Your task to perform on an android device: Add "bose quietcomfort 35" to the cart on walmart.com, then select checkout. Image 0: 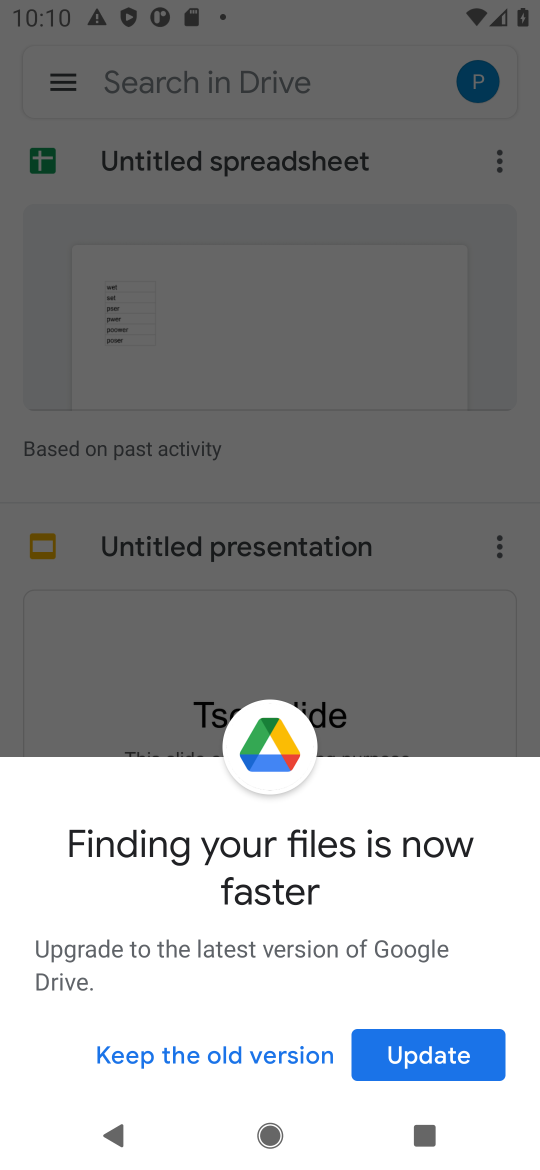
Step 0: press home button
Your task to perform on an android device: Add "bose quietcomfort 35" to the cart on walmart.com, then select checkout. Image 1: 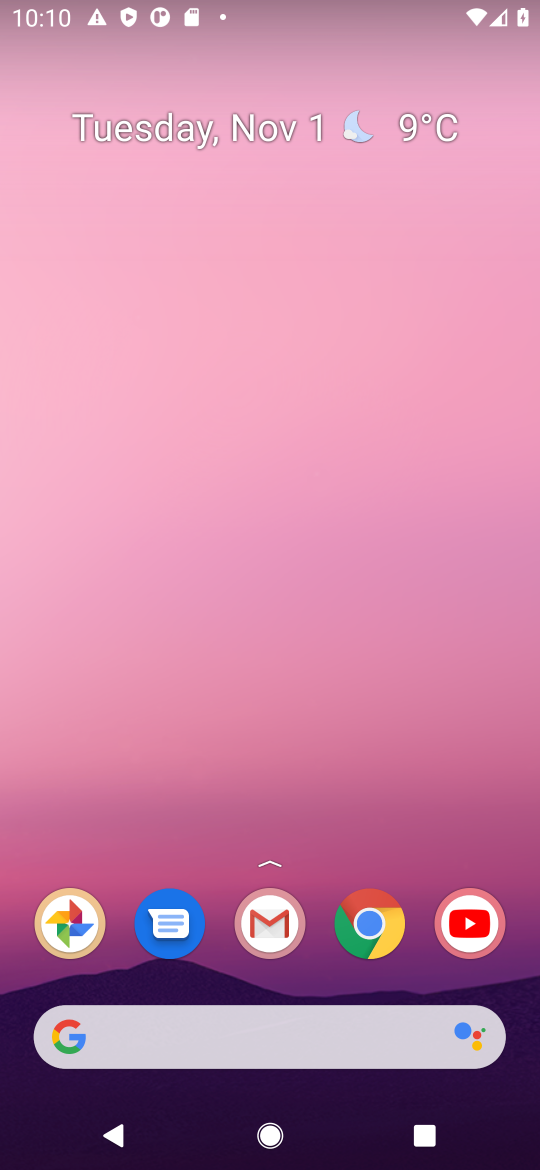
Step 1: drag from (332, 931) to (490, 111)
Your task to perform on an android device: Add "bose quietcomfort 35" to the cart on walmart.com, then select checkout. Image 2: 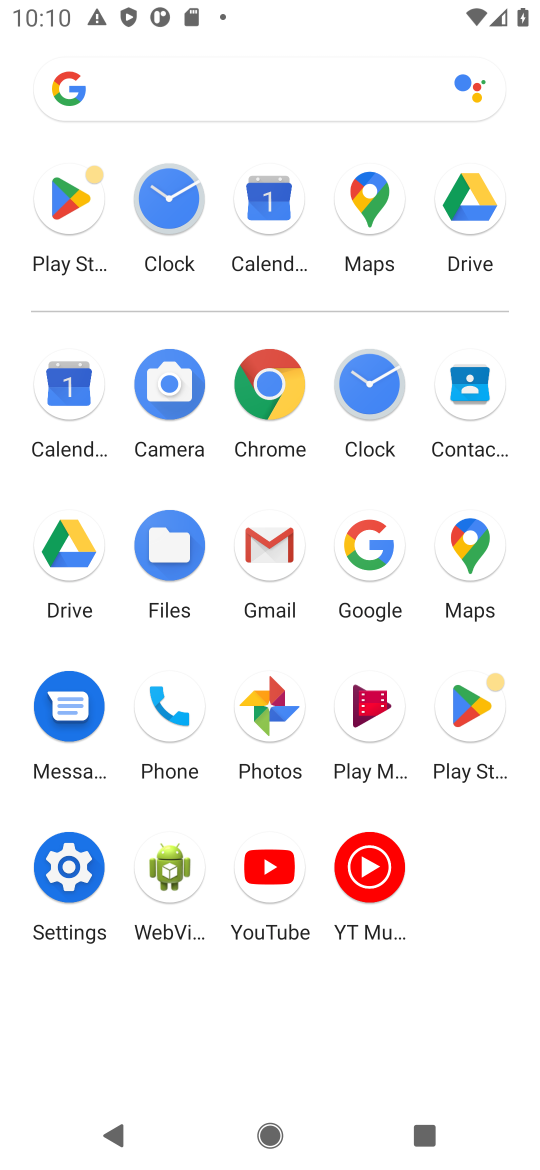
Step 2: click (271, 380)
Your task to perform on an android device: Add "bose quietcomfort 35" to the cart on walmart.com, then select checkout. Image 3: 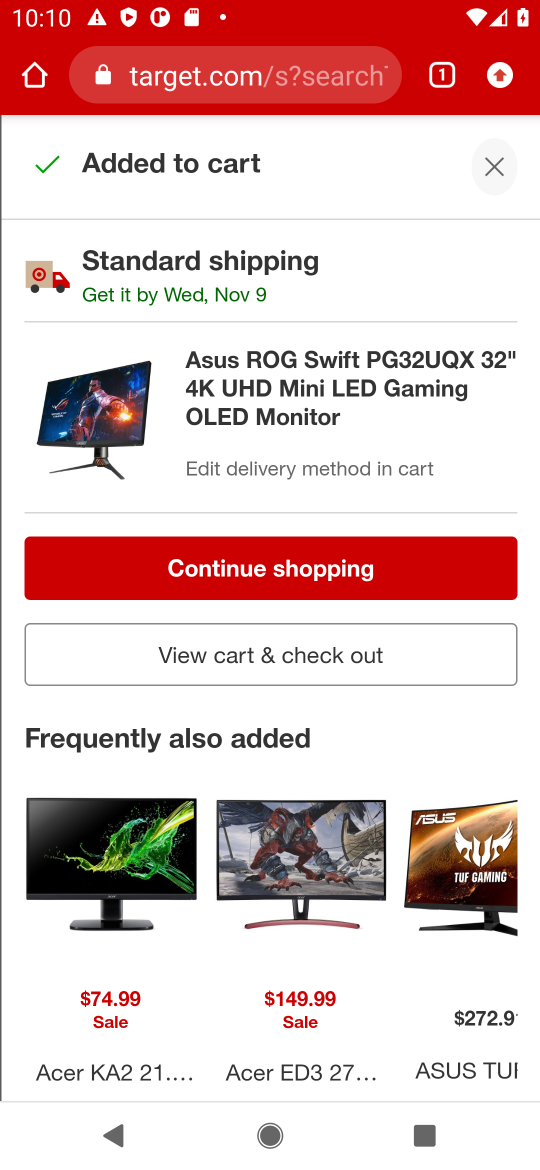
Step 3: click (318, 62)
Your task to perform on an android device: Add "bose quietcomfort 35" to the cart on walmart.com, then select checkout. Image 4: 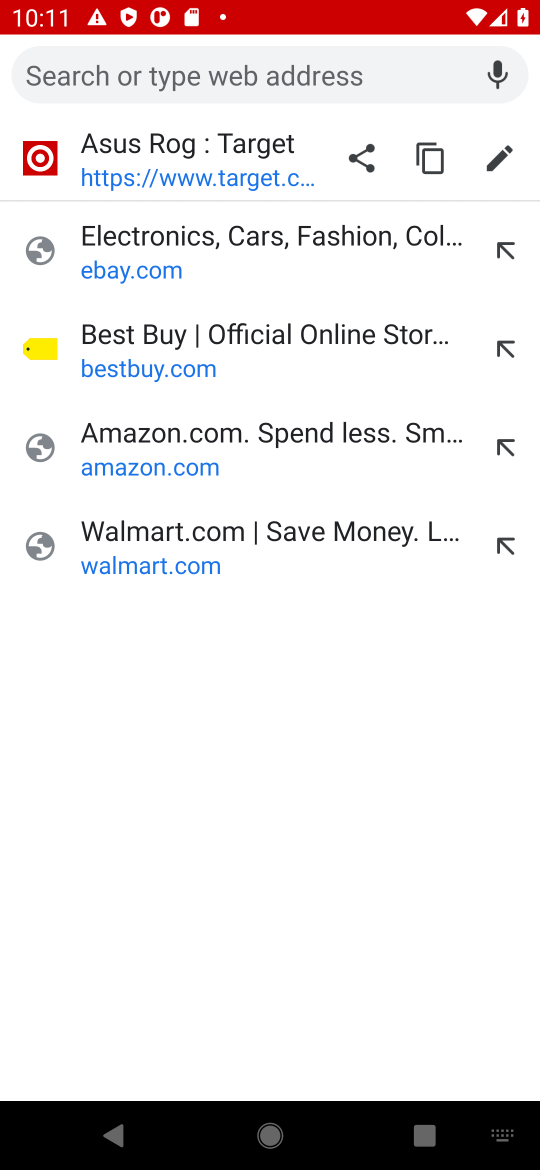
Step 4: type "walmart.com"
Your task to perform on an android device: Add "bose quietcomfort 35" to the cart on walmart.com, then select checkout. Image 5: 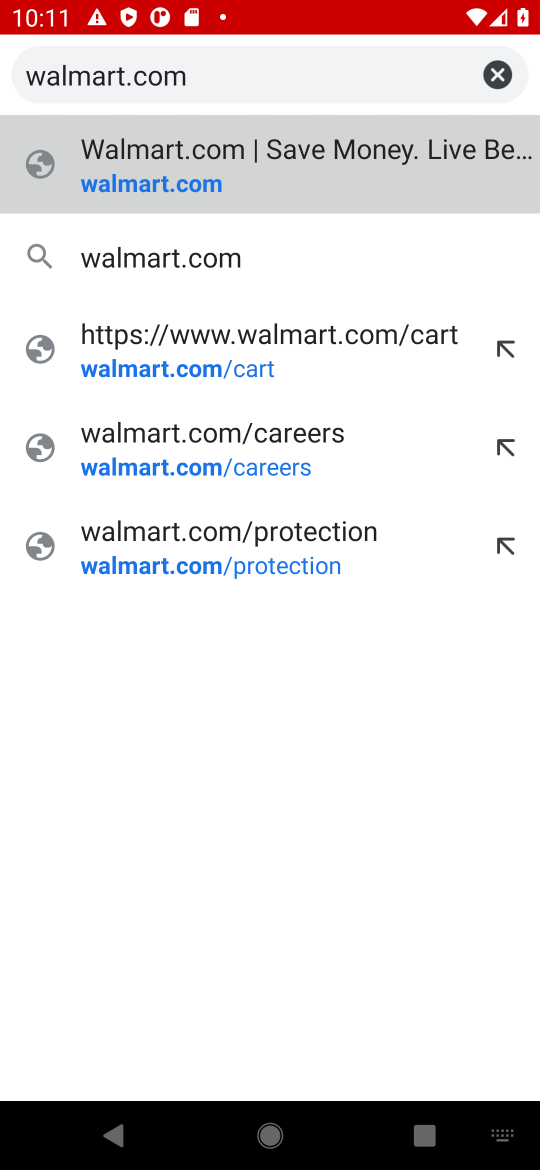
Step 5: press enter
Your task to perform on an android device: Add "bose quietcomfort 35" to the cart on walmart.com, then select checkout. Image 6: 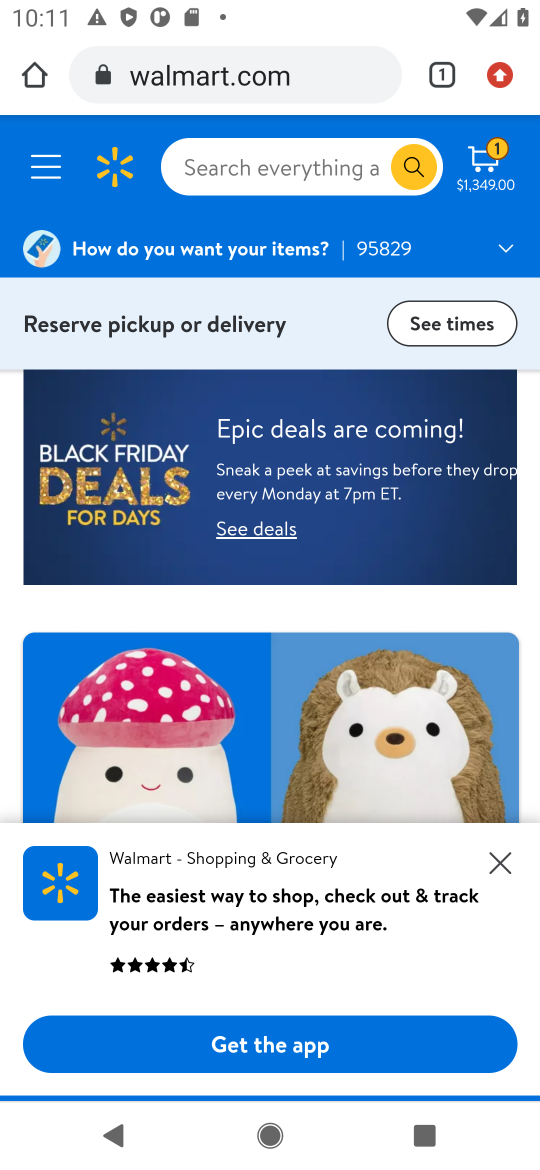
Step 6: click (323, 170)
Your task to perform on an android device: Add "bose quietcomfort 35" to the cart on walmart.com, then select checkout. Image 7: 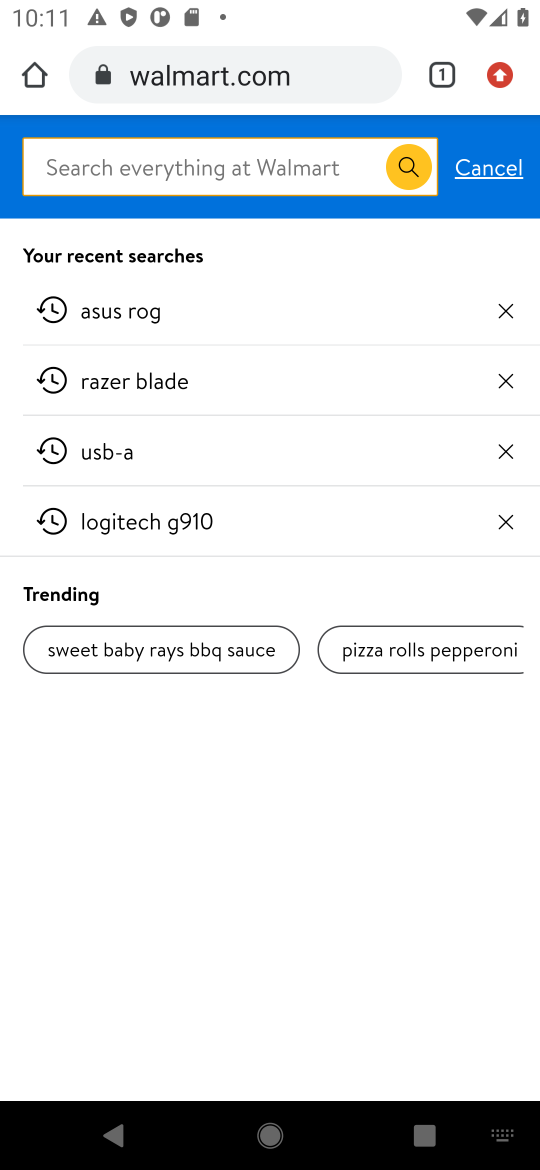
Step 7: type "bose quietcomfort 35"
Your task to perform on an android device: Add "bose quietcomfort 35" to the cart on walmart.com, then select checkout. Image 8: 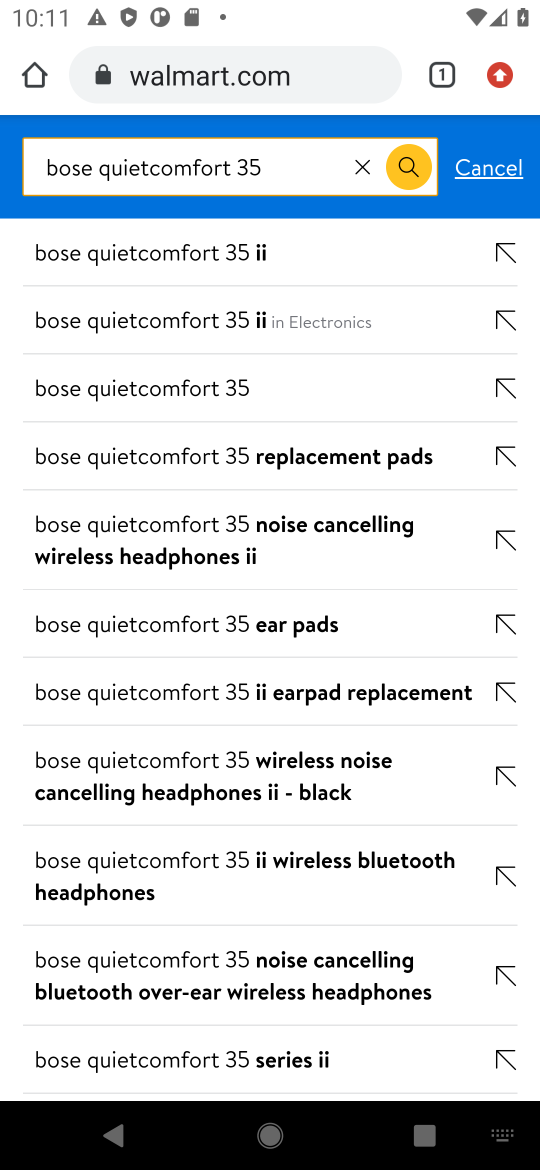
Step 8: press enter
Your task to perform on an android device: Add "bose quietcomfort 35" to the cart on walmart.com, then select checkout. Image 9: 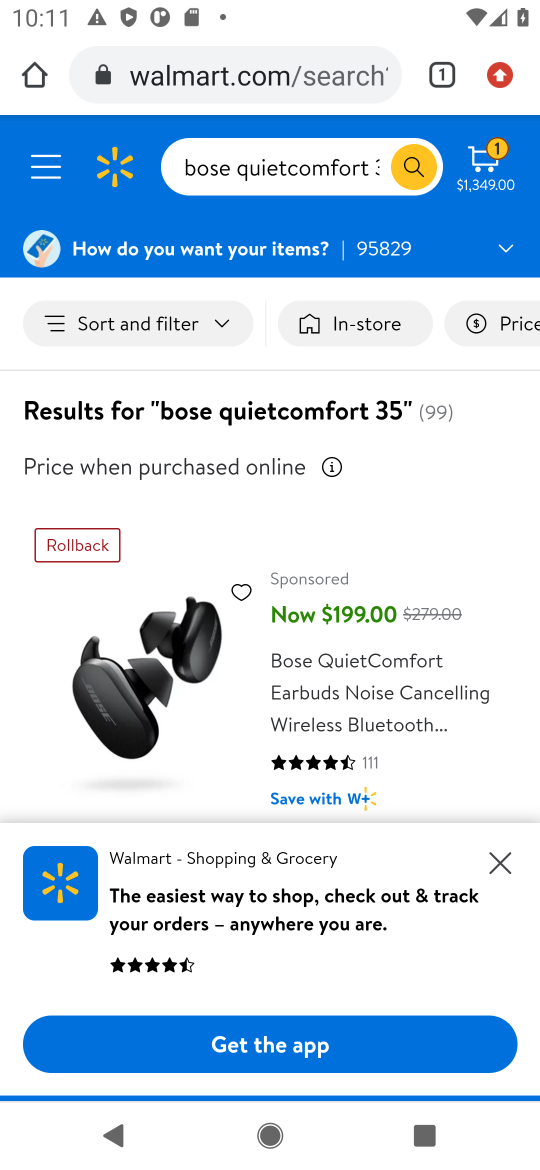
Step 9: drag from (364, 815) to (292, 277)
Your task to perform on an android device: Add "bose quietcomfort 35" to the cart on walmart.com, then select checkout. Image 10: 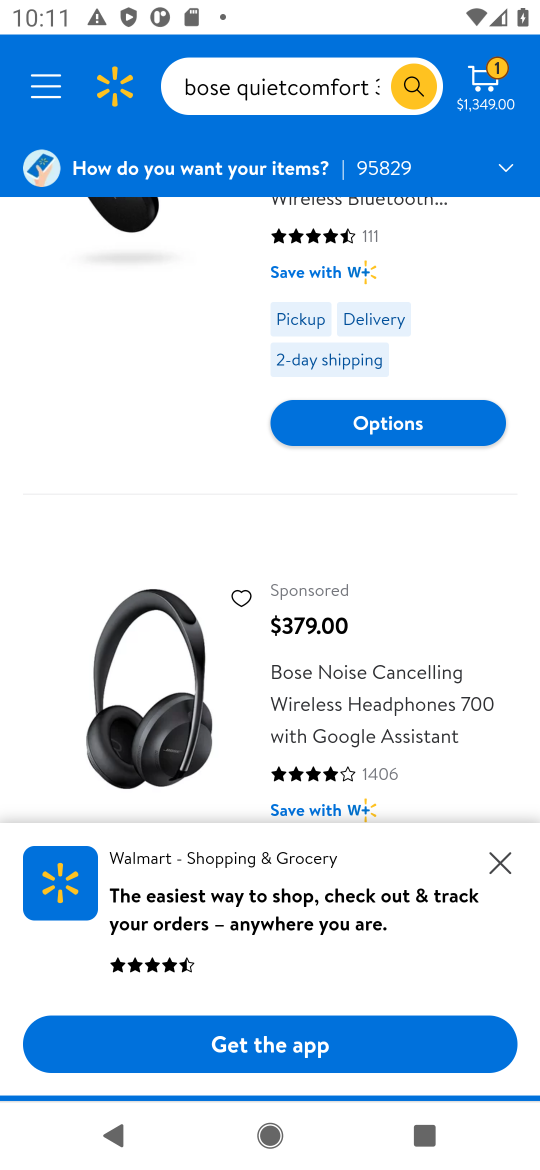
Step 10: click (505, 870)
Your task to perform on an android device: Add "bose quietcomfort 35" to the cart on walmart.com, then select checkout. Image 11: 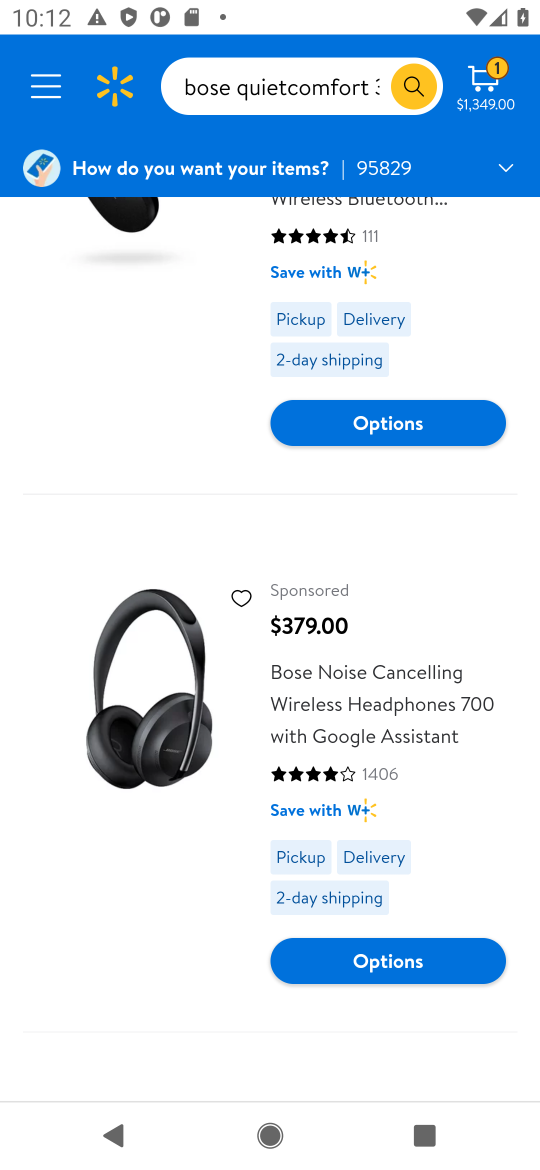
Step 11: drag from (444, 876) to (425, 313)
Your task to perform on an android device: Add "bose quietcomfort 35" to the cart on walmart.com, then select checkout. Image 12: 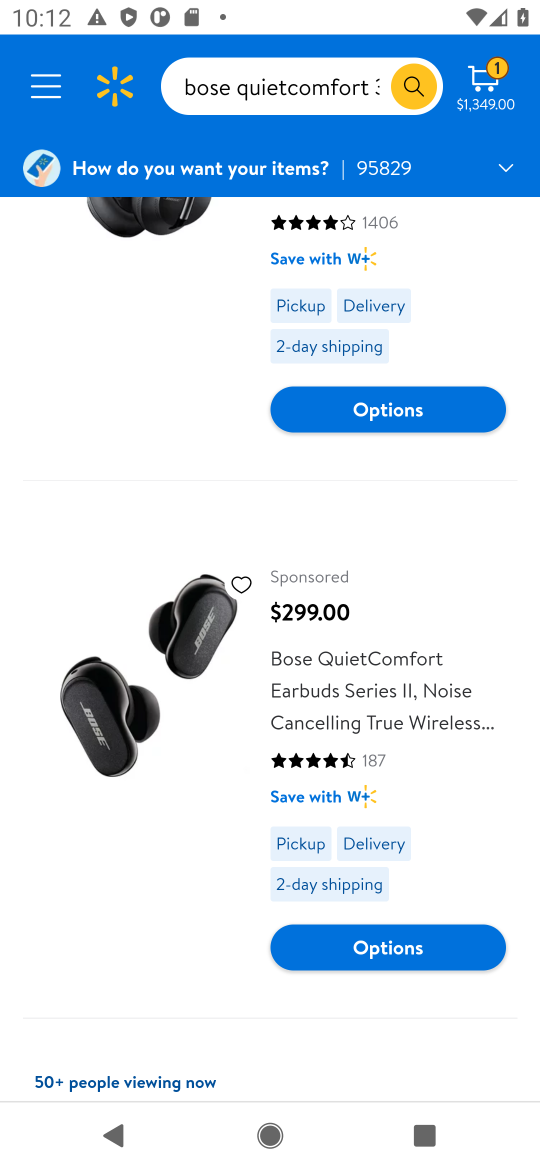
Step 12: drag from (488, 905) to (371, 170)
Your task to perform on an android device: Add "bose quietcomfort 35" to the cart on walmart.com, then select checkout. Image 13: 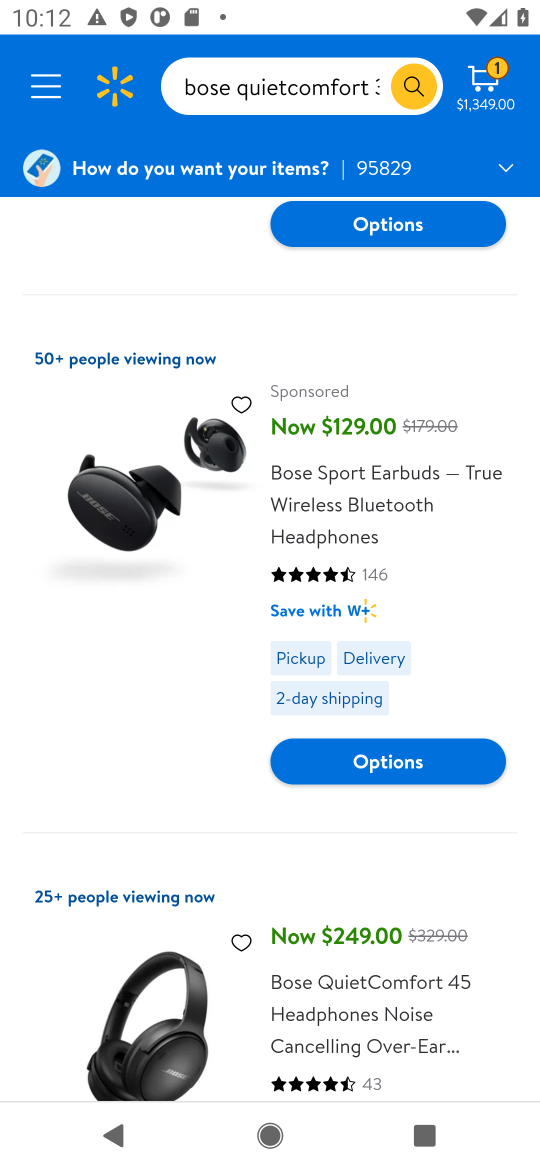
Step 13: drag from (376, 922) to (382, 470)
Your task to perform on an android device: Add "bose quietcomfort 35" to the cart on walmart.com, then select checkout. Image 14: 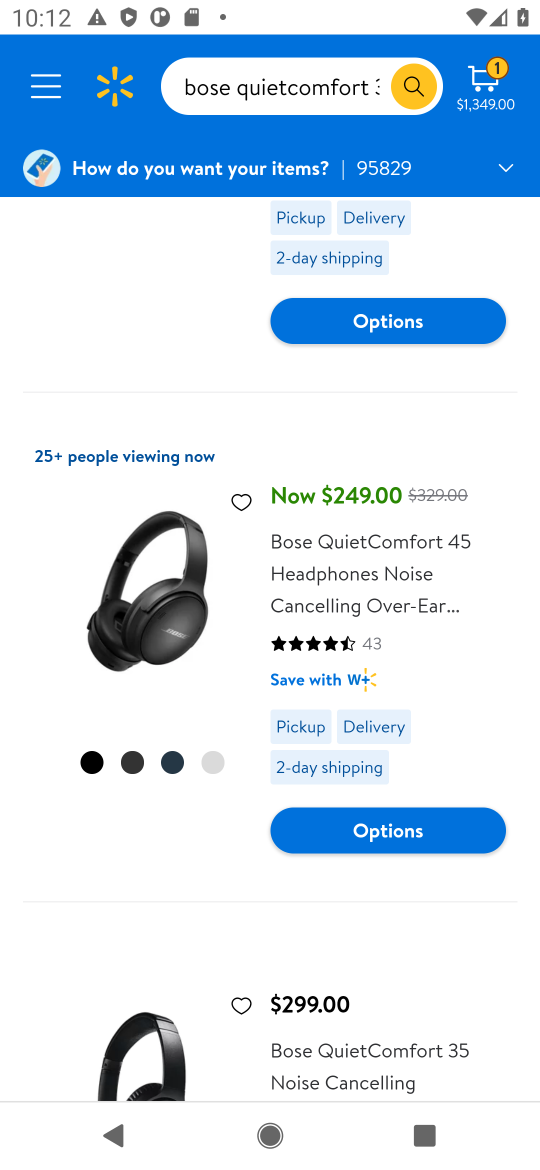
Step 14: click (321, 646)
Your task to perform on an android device: Add "bose quietcomfort 35" to the cart on walmart.com, then select checkout. Image 15: 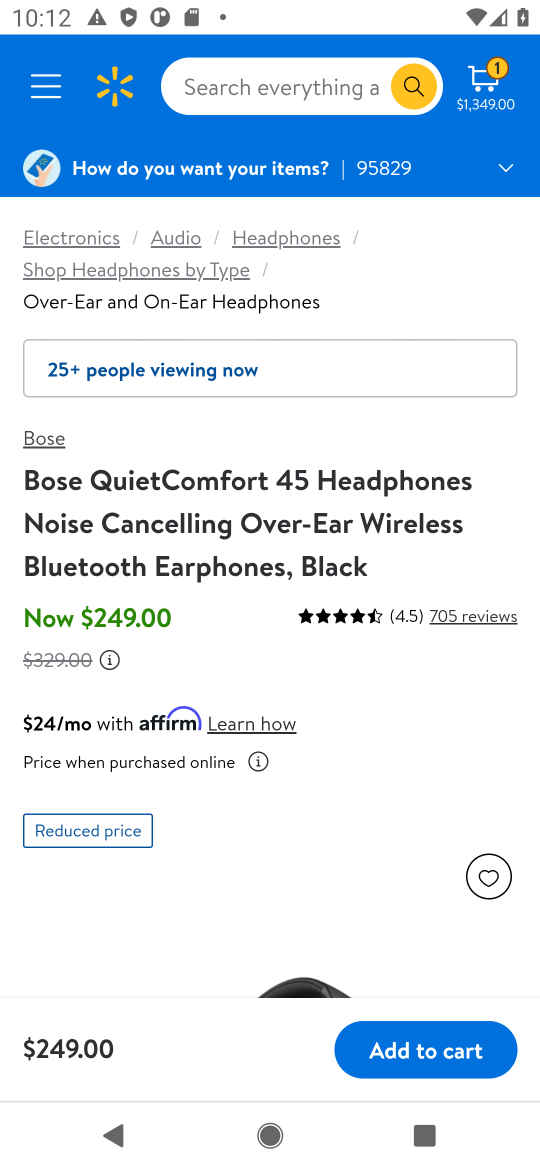
Step 15: click (436, 1053)
Your task to perform on an android device: Add "bose quietcomfort 35" to the cart on walmart.com, then select checkout. Image 16: 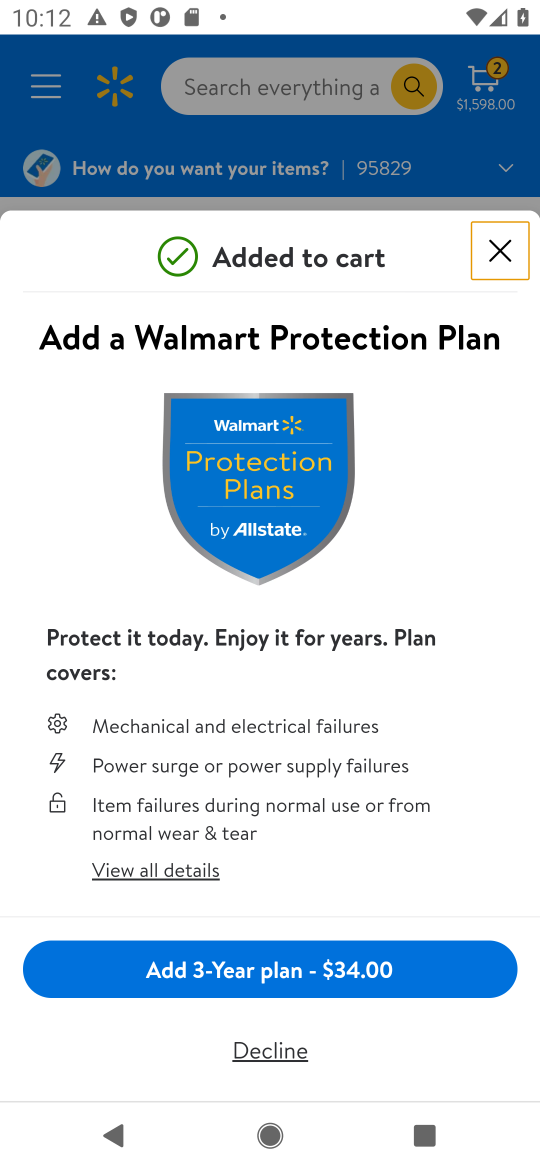
Step 16: click (511, 258)
Your task to perform on an android device: Add "bose quietcomfort 35" to the cart on walmart.com, then select checkout. Image 17: 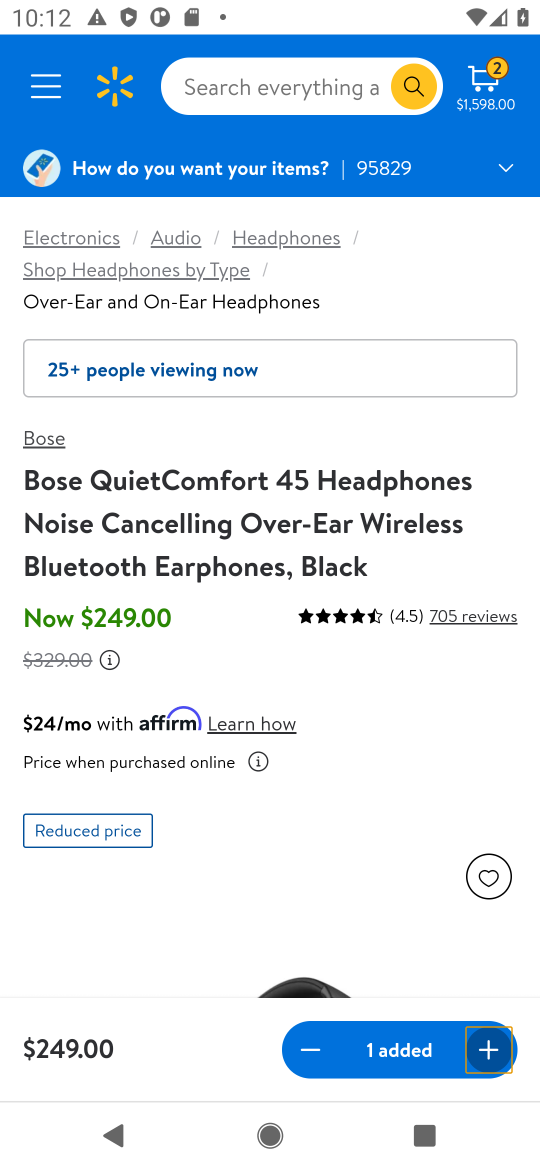
Step 17: drag from (375, 866) to (396, 294)
Your task to perform on an android device: Add "bose quietcomfort 35" to the cart on walmart.com, then select checkout. Image 18: 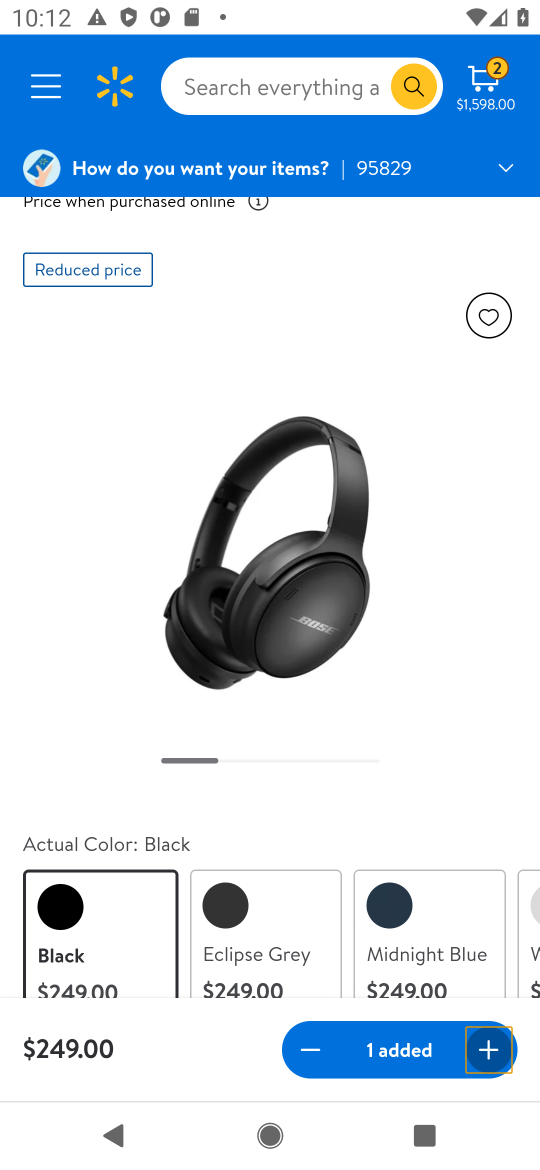
Step 18: click (487, 74)
Your task to perform on an android device: Add "bose quietcomfort 35" to the cart on walmart.com, then select checkout. Image 19: 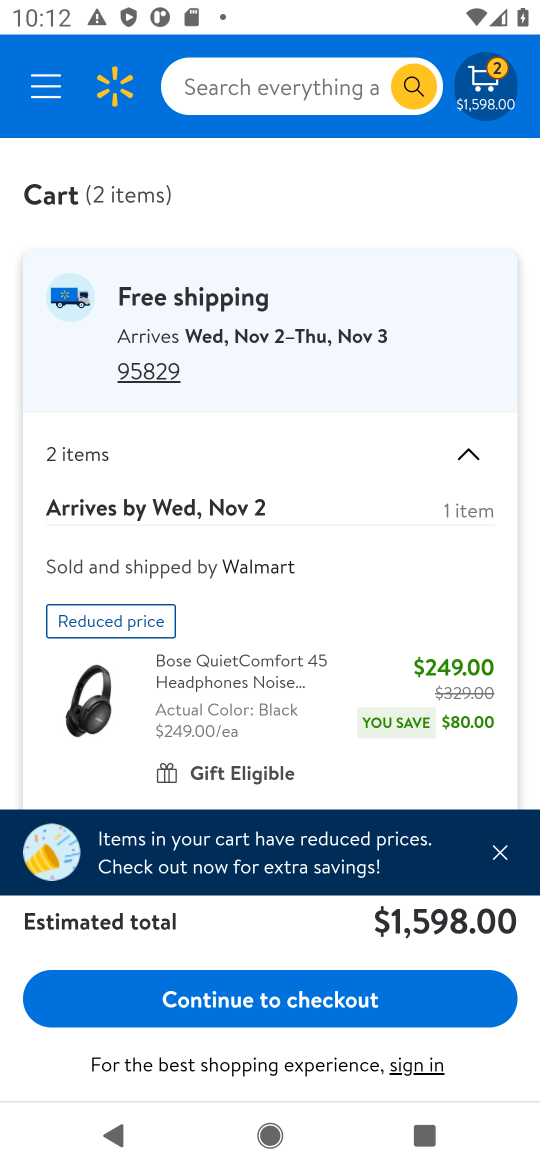
Step 19: click (310, 1019)
Your task to perform on an android device: Add "bose quietcomfort 35" to the cart on walmart.com, then select checkout. Image 20: 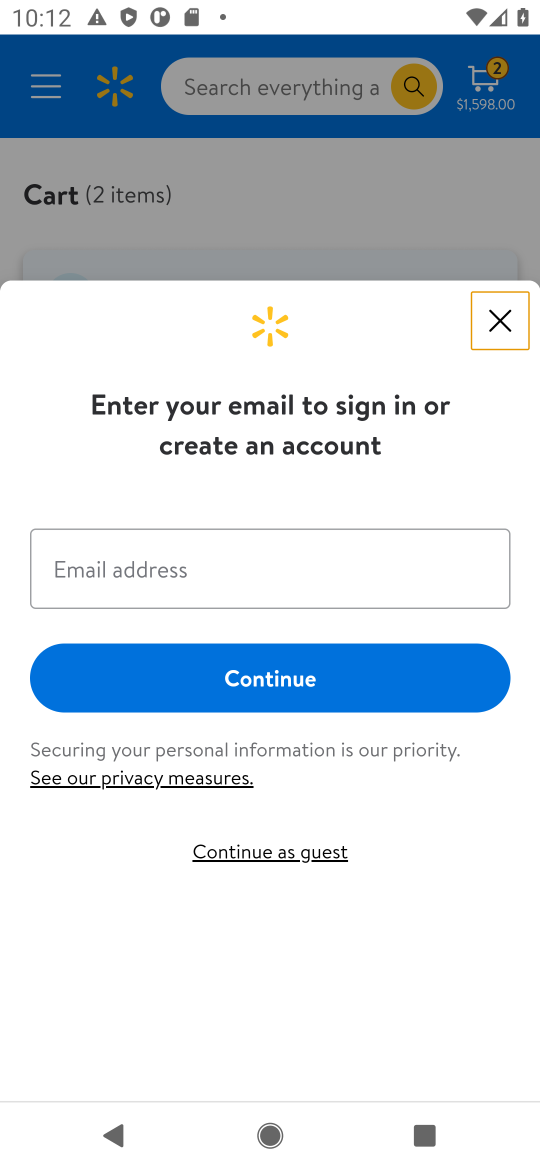
Step 20: task complete